Your task to perform on an android device: Open calendar and show me the first week of next month Image 0: 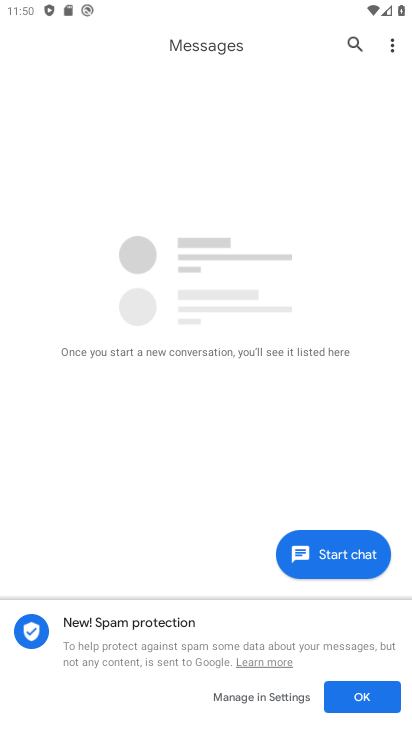
Step 0: press home button
Your task to perform on an android device: Open calendar and show me the first week of next month Image 1: 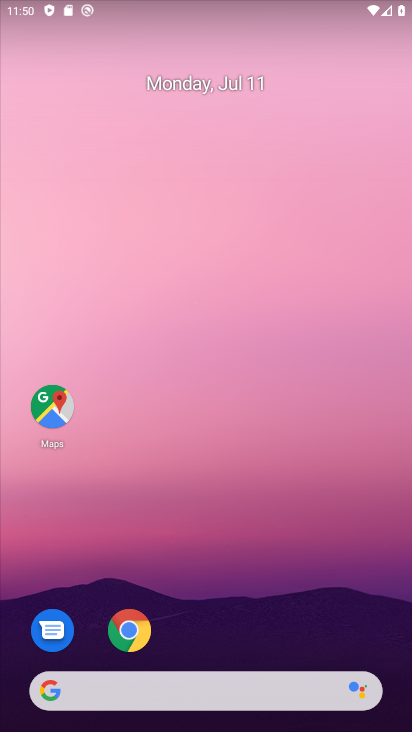
Step 1: drag from (212, 675) to (210, 94)
Your task to perform on an android device: Open calendar and show me the first week of next month Image 2: 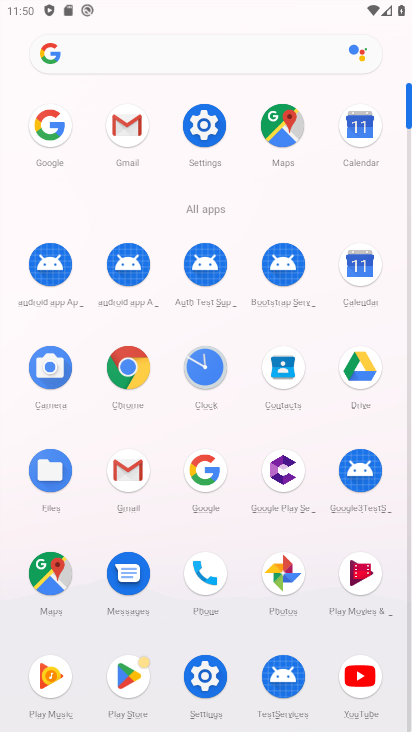
Step 2: click (360, 263)
Your task to perform on an android device: Open calendar and show me the first week of next month Image 3: 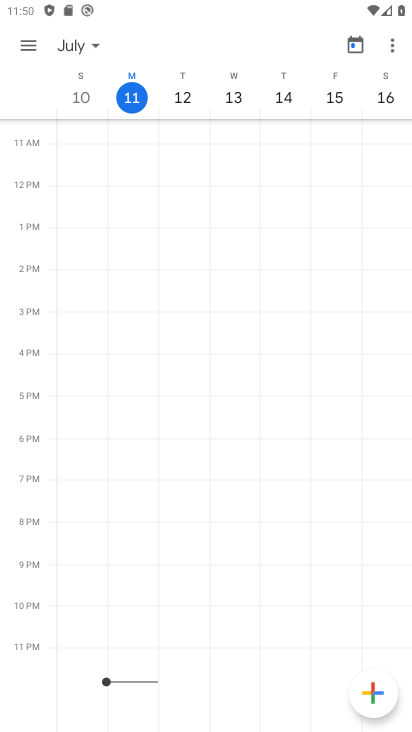
Step 3: click (357, 47)
Your task to perform on an android device: Open calendar and show me the first week of next month Image 4: 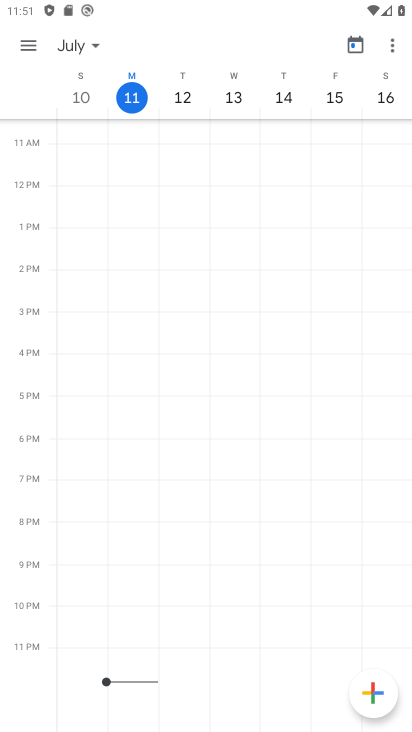
Step 4: click (94, 46)
Your task to perform on an android device: Open calendar and show me the first week of next month Image 5: 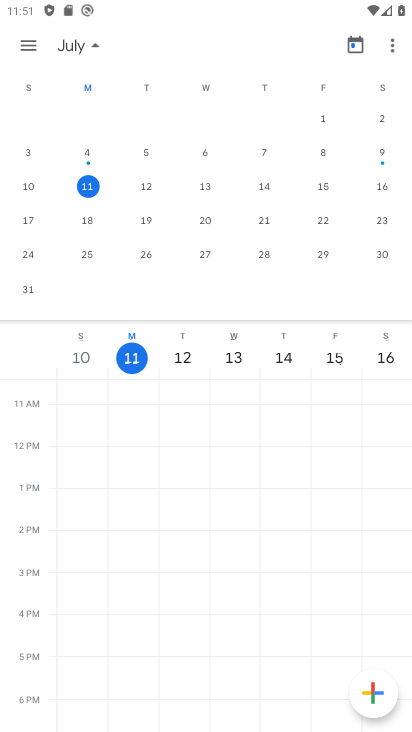
Step 5: drag from (364, 204) to (1, 201)
Your task to perform on an android device: Open calendar and show me the first week of next month Image 6: 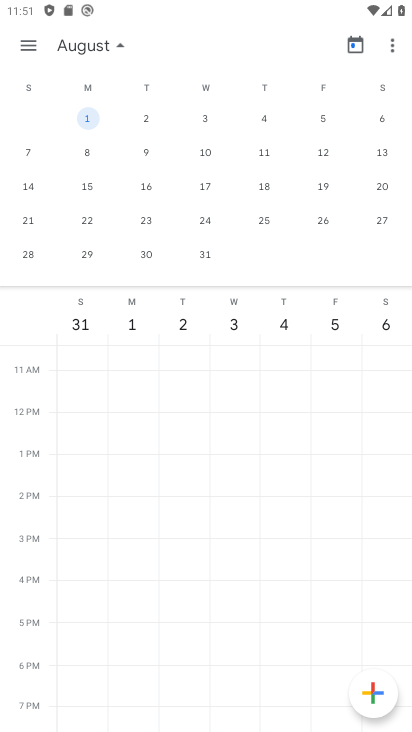
Step 6: click (29, 40)
Your task to perform on an android device: Open calendar and show me the first week of next month Image 7: 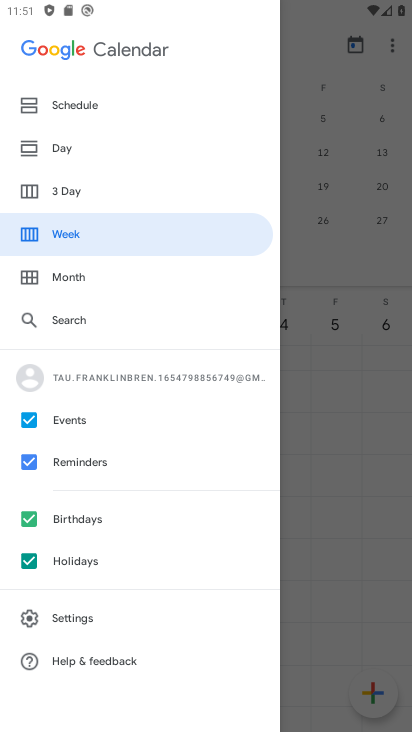
Step 7: click (66, 227)
Your task to perform on an android device: Open calendar and show me the first week of next month Image 8: 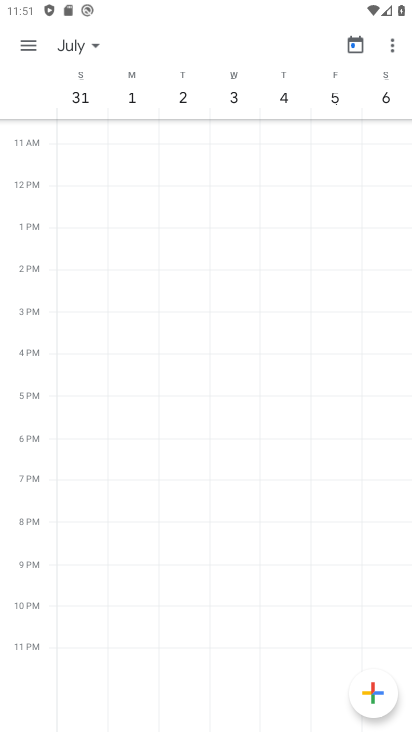
Step 8: task complete